Your task to perform on an android device: Go to ESPN.com Image 0: 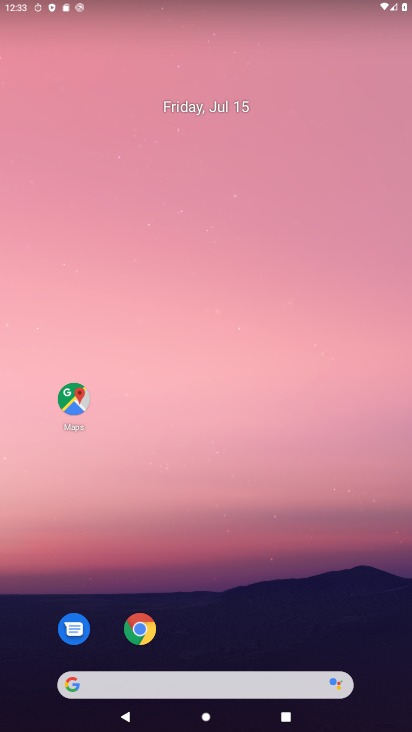
Step 0: click (135, 635)
Your task to perform on an android device: Go to ESPN.com Image 1: 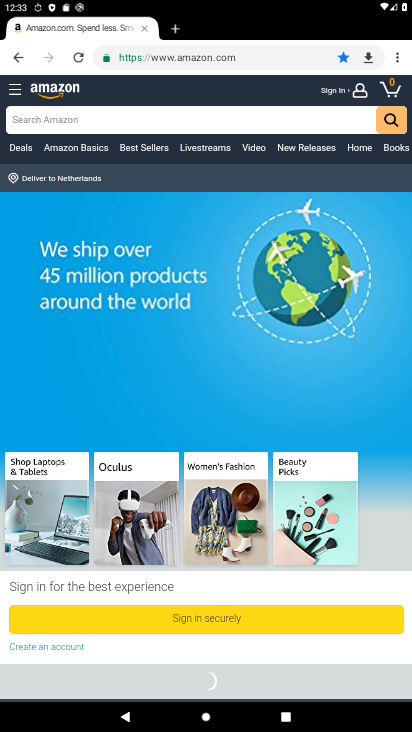
Step 1: click (178, 61)
Your task to perform on an android device: Go to ESPN.com Image 2: 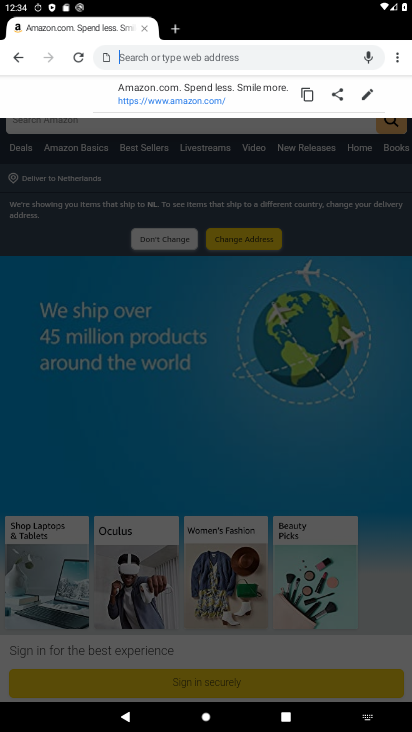
Step 2: type "ESPN.com"
Your task to perform on an android device: Go to ESPN.com Image 3: 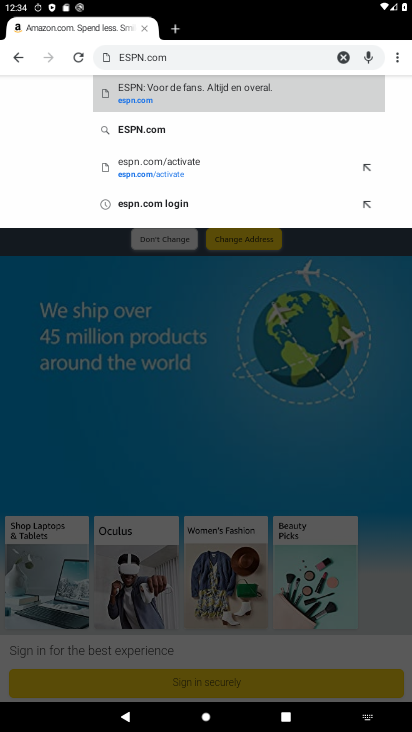
Step 3: click (178, 99)
Your task to perform on an android device: Go to ESPN.com Image 4: 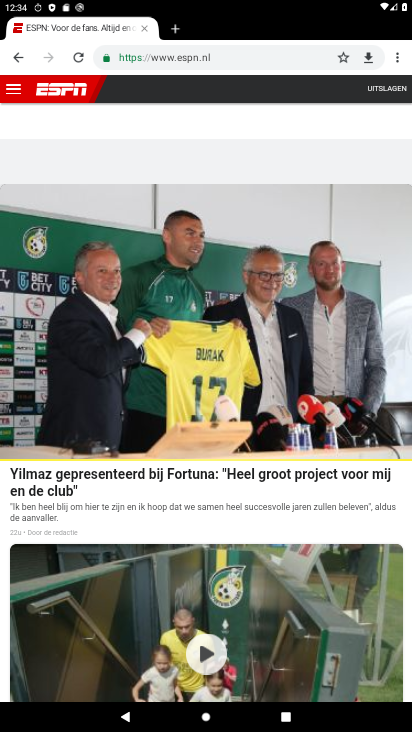
Step 4: task complete